Your task to perform on an android device: Add logitech g910 to the cart on newegg.com, then select checkout. Image 0: 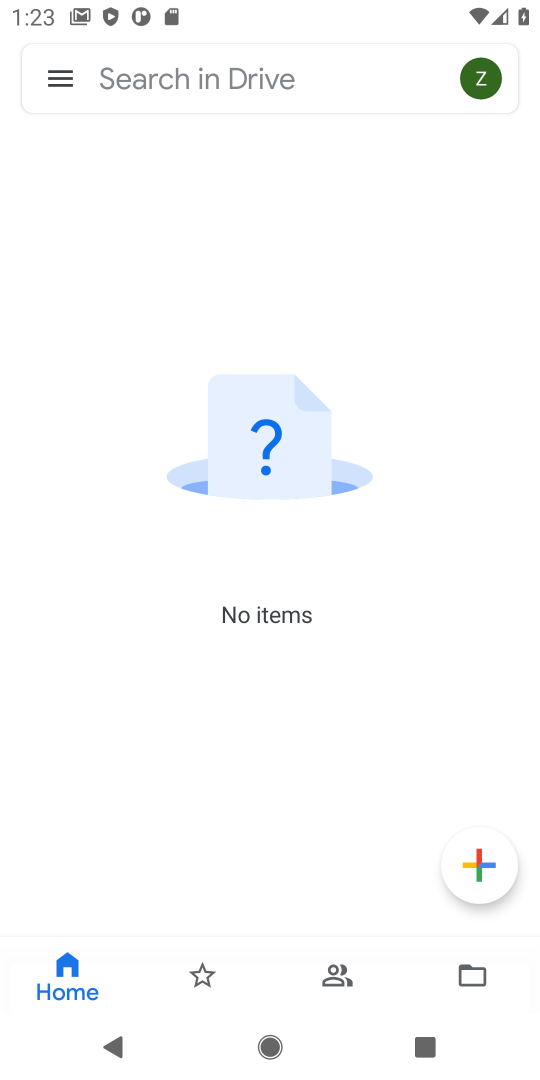
Step 0: press home button
Your task to perform on an android device: Add logitech g910 to the cart on newegg.com, then select checkout. Image 1: 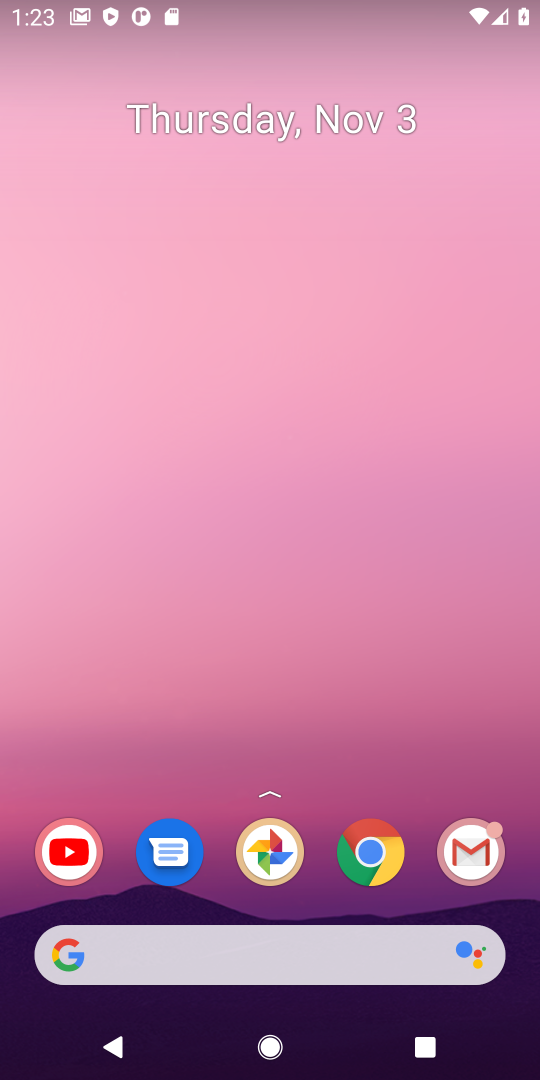
Step 1: click (374, 863)
Your task to perform on an android device: Add logitech g910 to the cart on newegg.com, then select checkout. Image 2: 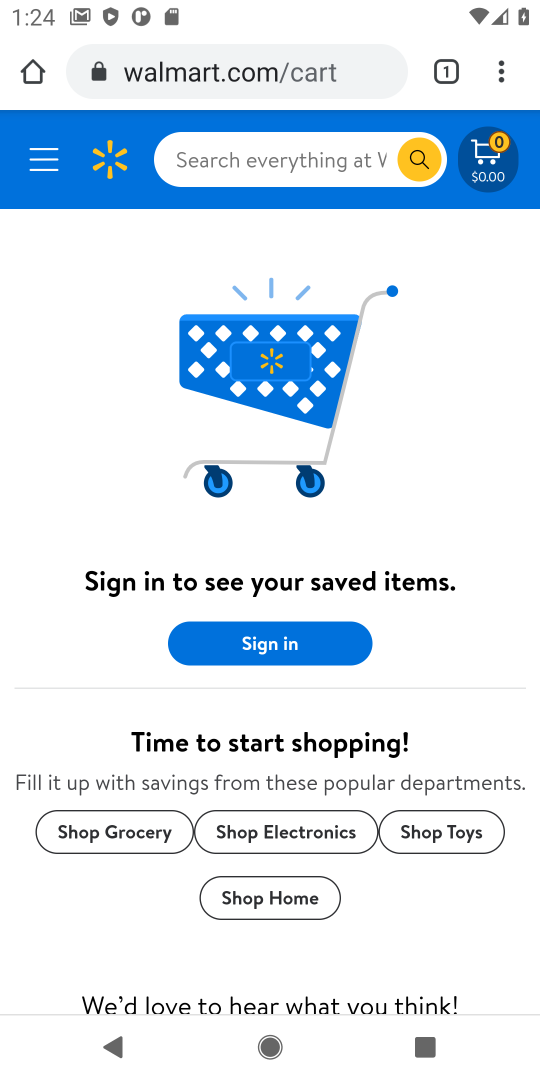
Step 2: click (239, 75)
Your task to perform on an android device: Add logitech g910 to the cart on newegg.com, then select checkout. Image 3: 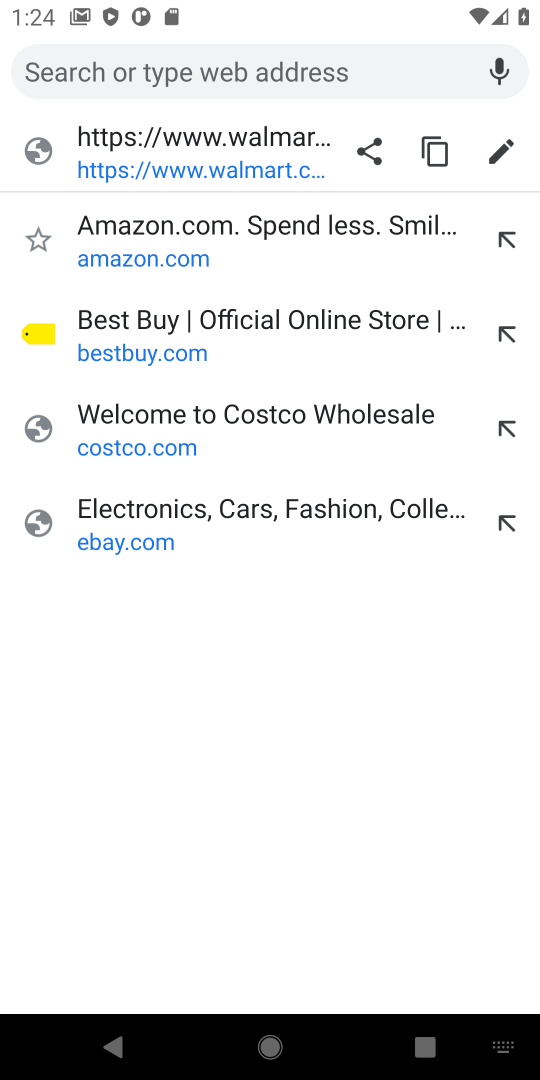
Step 3: type "newegg.com"
Your task to perform on an android device: Add logitech g910 to the cart on newegg.com, then select checkout. Image 4: 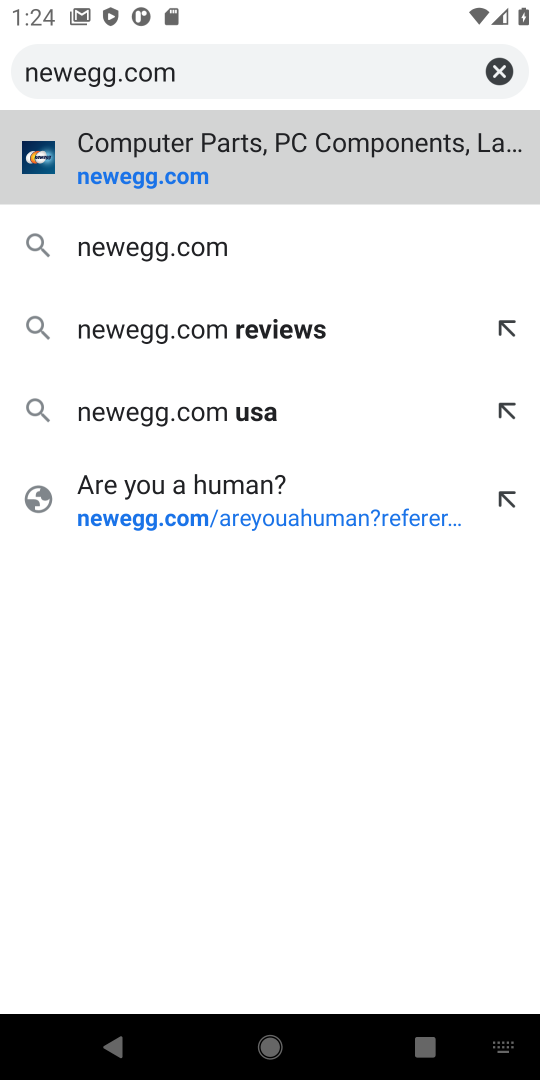
Step 4: click (153, 260)
Your task to perform on an android device: Add logitech g910 to the cart on newegg.com, then select checkout. Image 5: 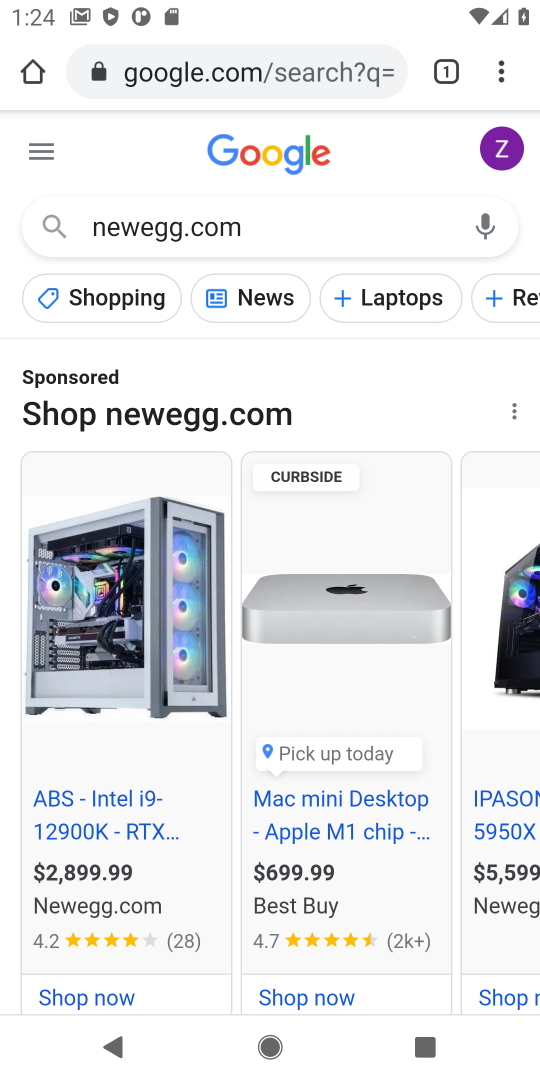
Step 5: drag from (314, 739) to (327, 200)
Your task to perform on an android device: Add logitech g910 to the cart on newegg.com, then select checkout. Image 6: 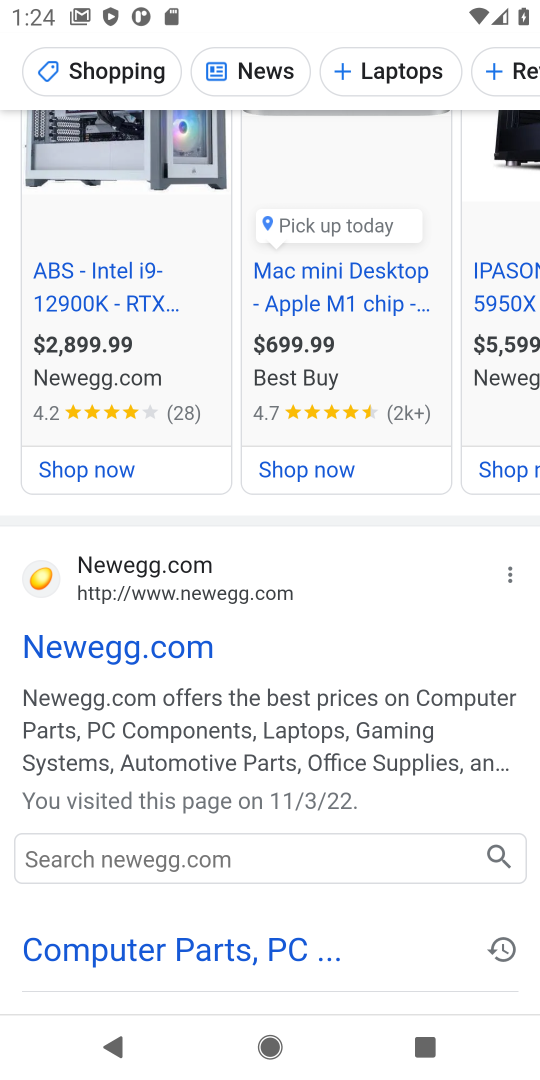
Step 6: click (70, 652)
Your task to perform on an android device: Add logitech g910 to the cart on newegg.com, then select checkout. Image 7: 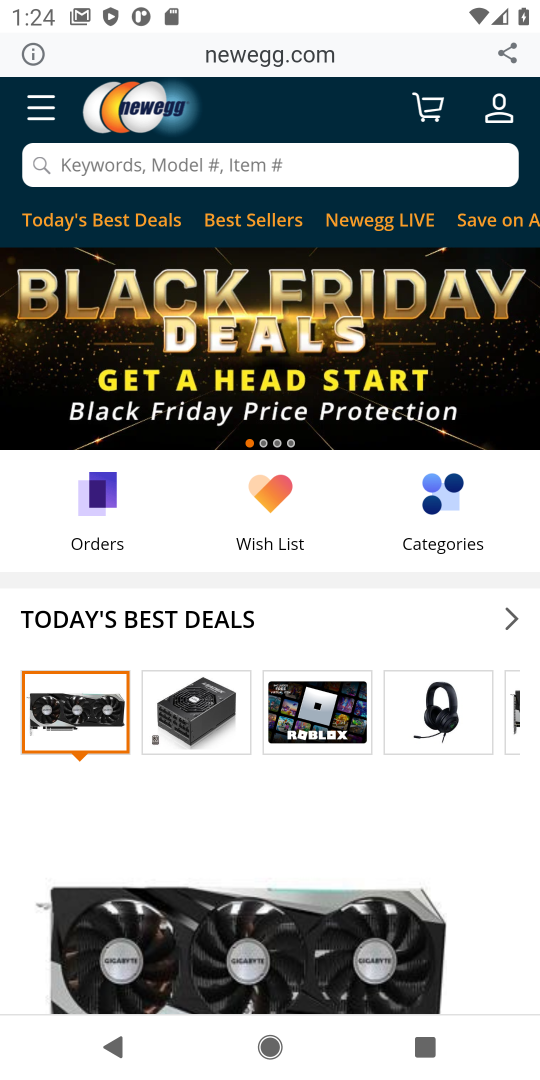
Step 7: click (89, 159)
Your task to perform on an android device: Add logitech g910 to the cart on newegg.com, then select checkout. Image 8: 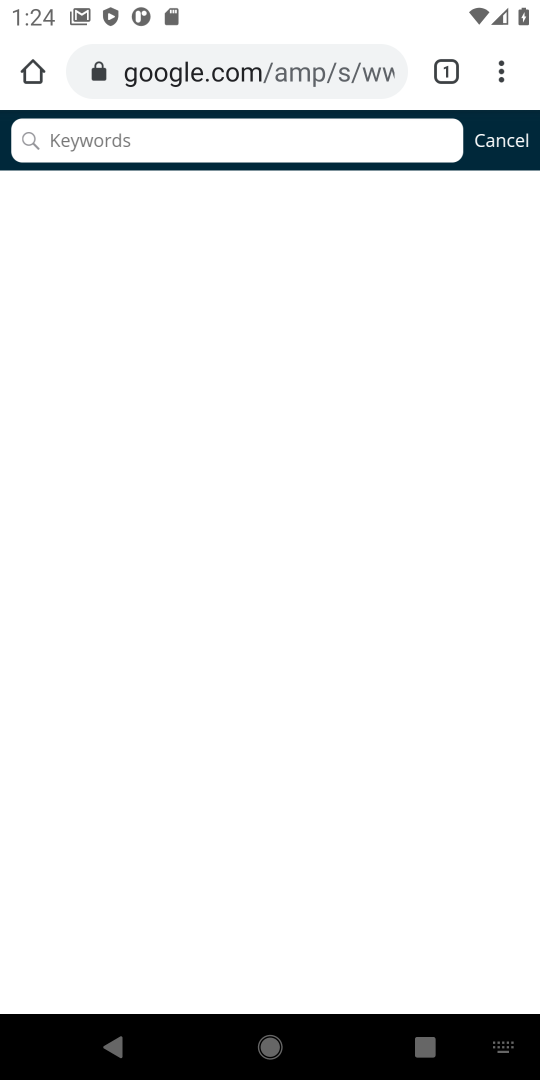
Step 8: type " logitech g910"
Your task to perform on an android device: Add logitech g910 to the cart on newegg.com, then select checkout. Image 9: 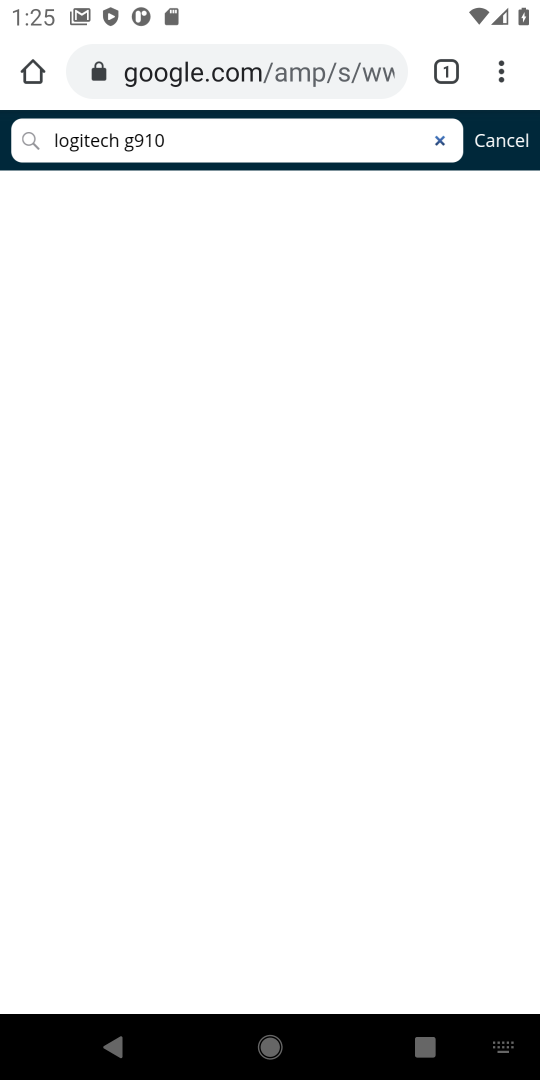
Step 9: click (29, 142)
Your task to perform on an android device: Add logitech g910 to the cart on newegg.com, then select checkout. Image 10: 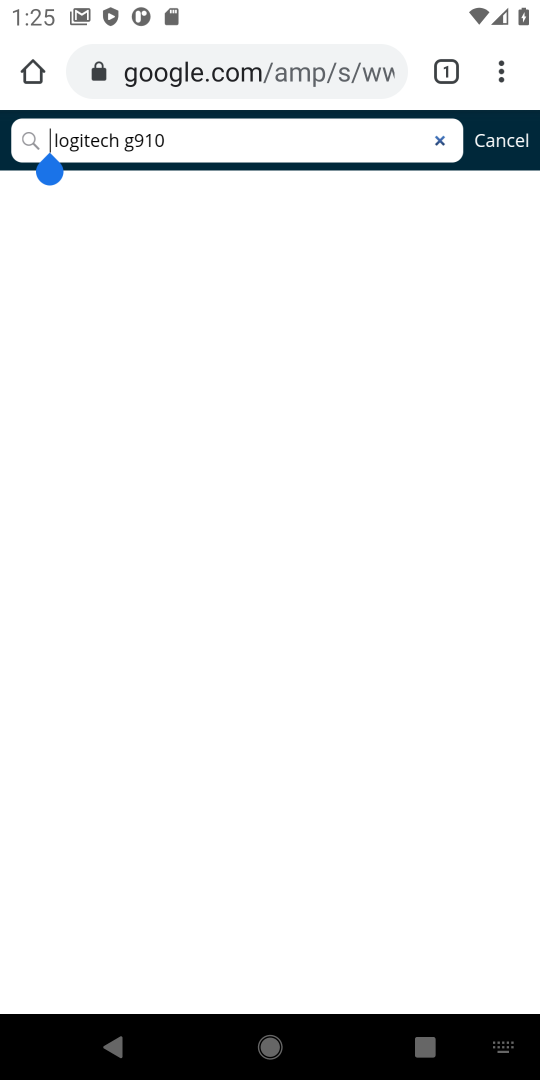
Step 10: task complete